Your task to perform on an android device: turn off sleep mode Image 0: 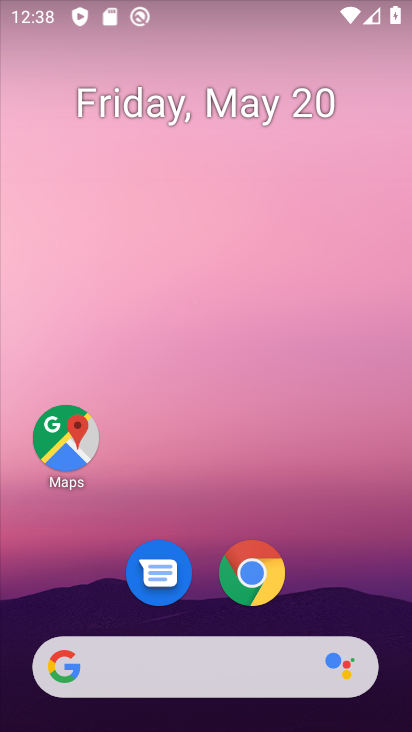
Step 0: drag from (312, 523) to (176, 73)
Your task to perform on an android device: turn off sleep mode Image 1: 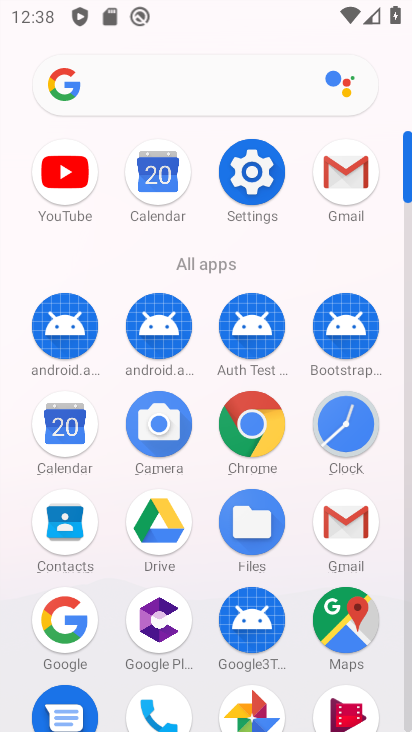
Step 1: click (246, 168)
Your task to perform on an android device: turn off sleep mode Image 2: 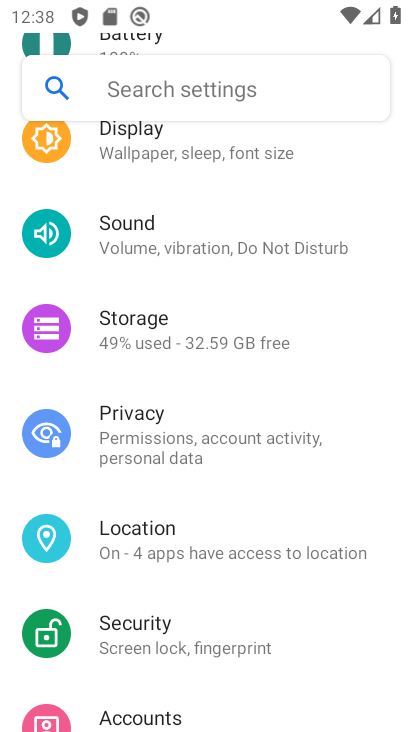
Step 2: click (119, 135)
Your task to perform on an android device: turn off sleep mode Image 3: 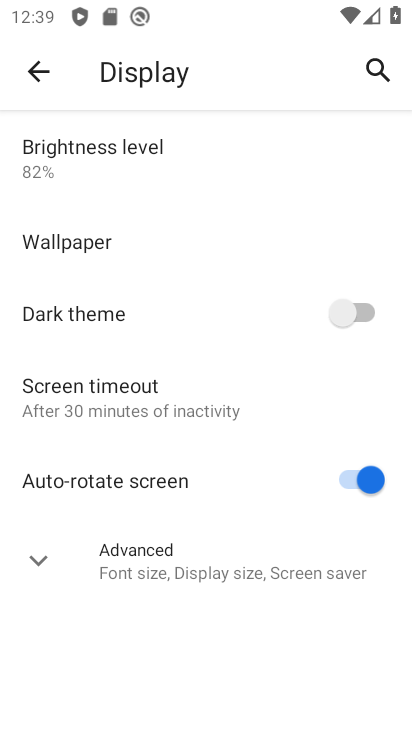
Step 3: task complete